Your task to perform on an android device: open sync settings in chrome Image 0: 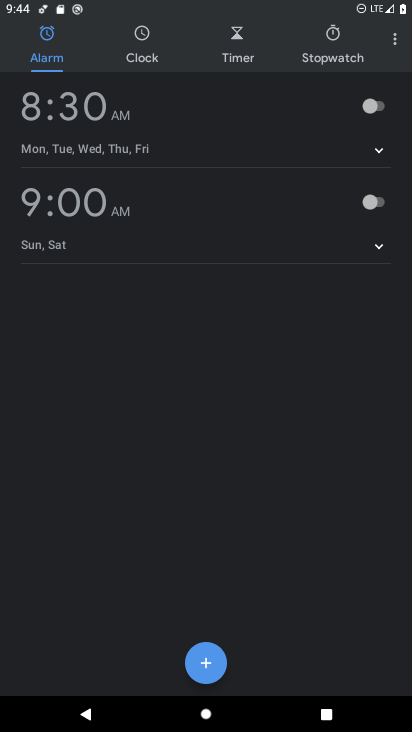
Step 0: press home button
Your task to perform on an android device: open sync settings in chrome Image 1: 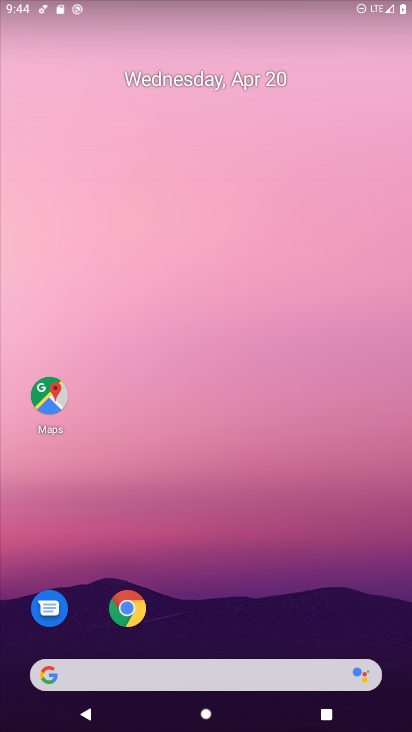
Step 1: drag from (209, 625) to (342, 21)
Your task to perform on an android device: open sync settings in chrome Image 2: 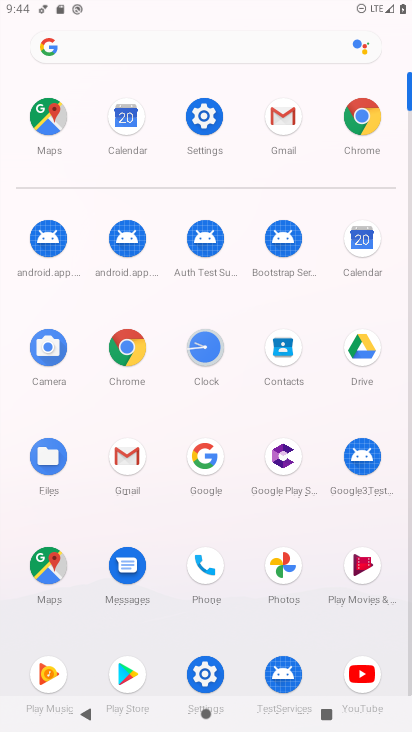
Step 2: click (136, 355)
Your task to perform on an android device: open sync settings in chrome Image 3: 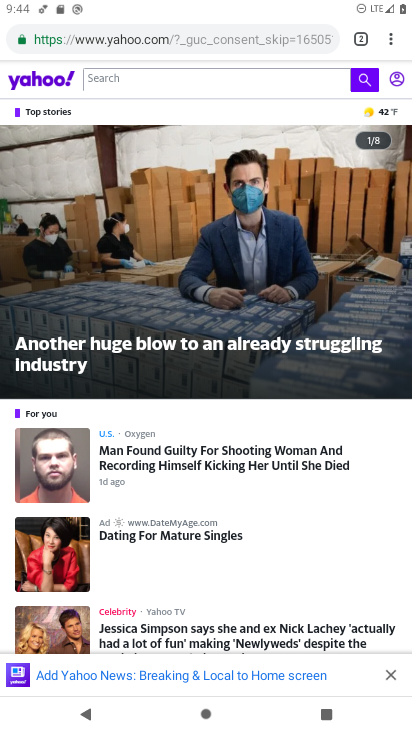
Step 3: click (384, 50)
Your task to perform on an android device: open sync settings in chrome Image 4: 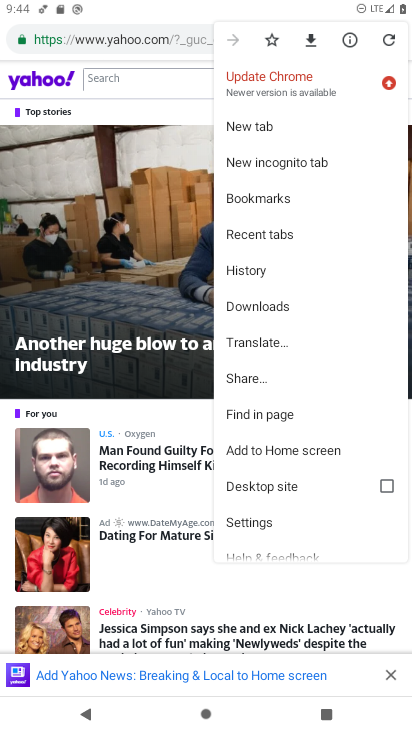
Step 4: click (262, 520)
Your task to perform on an android device: open sync settings in chrome Image 5: 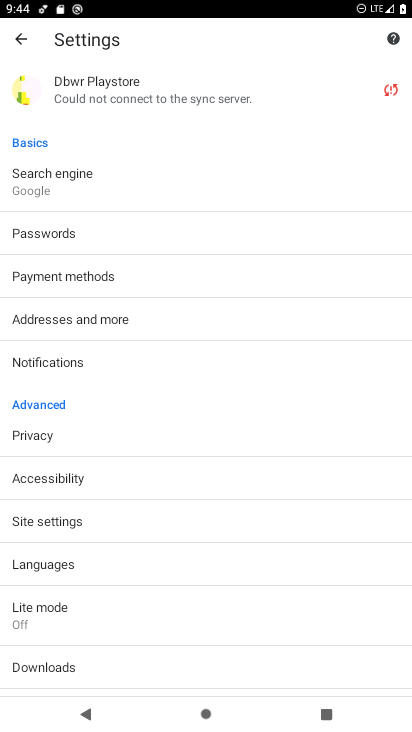
Step 5: click (131, 88)
Your task to perform on an android device: open sync settings in chrome Image 6: 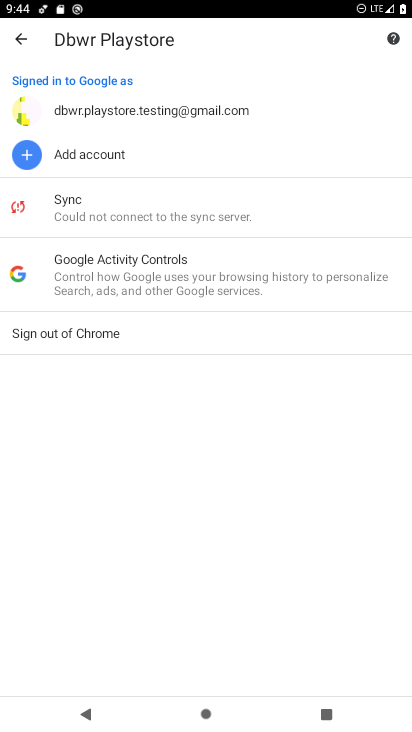
Step 6: click (90, 219)
Your task to perform on an android device: open sync settings in chrome Image 7: 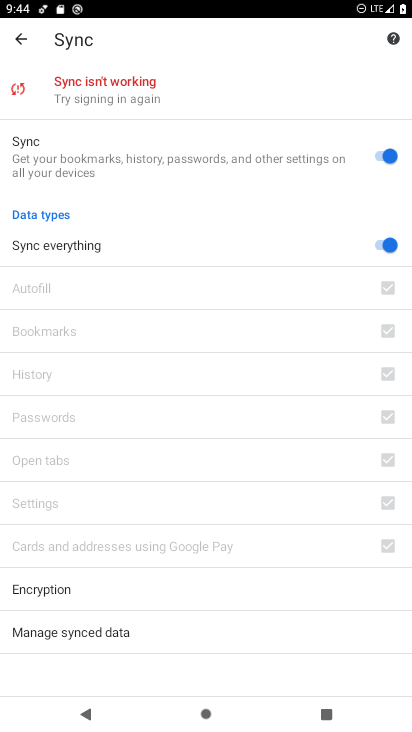
Step 7: task complete